Your task to perform on an android device: Open Google Image 0: 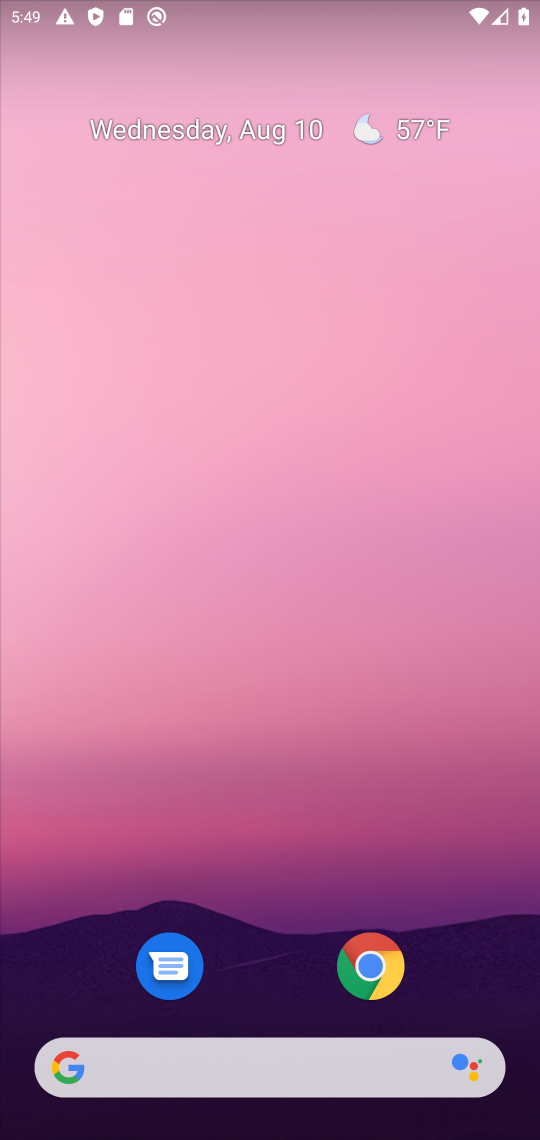
Step 0: press home button
Your task to perform on an android device: Open Google Image 1: 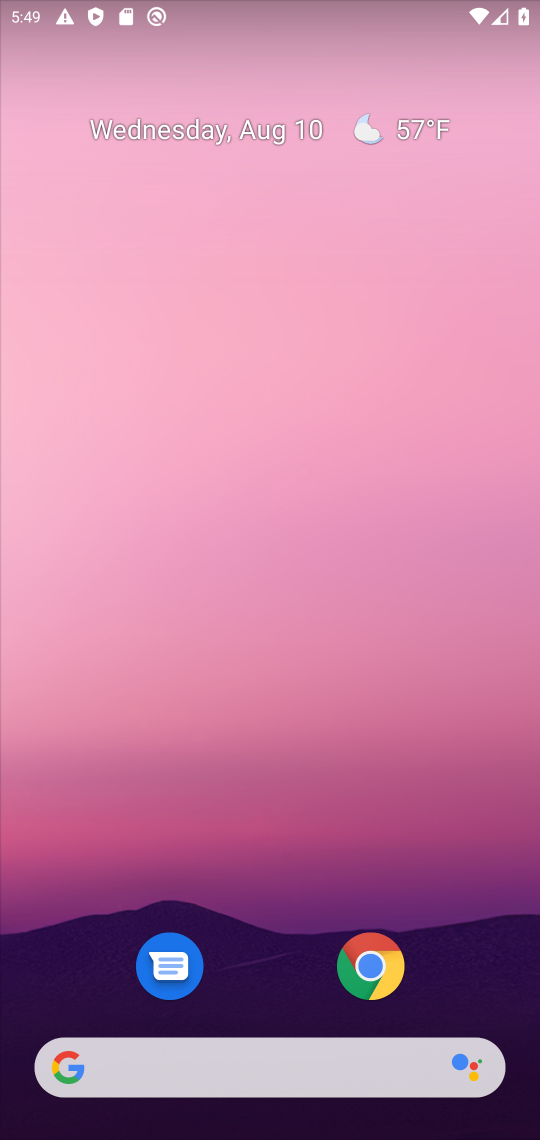
Step 1: click (75, 1078)
Your task to perform on an android device: Open Google Image 2: 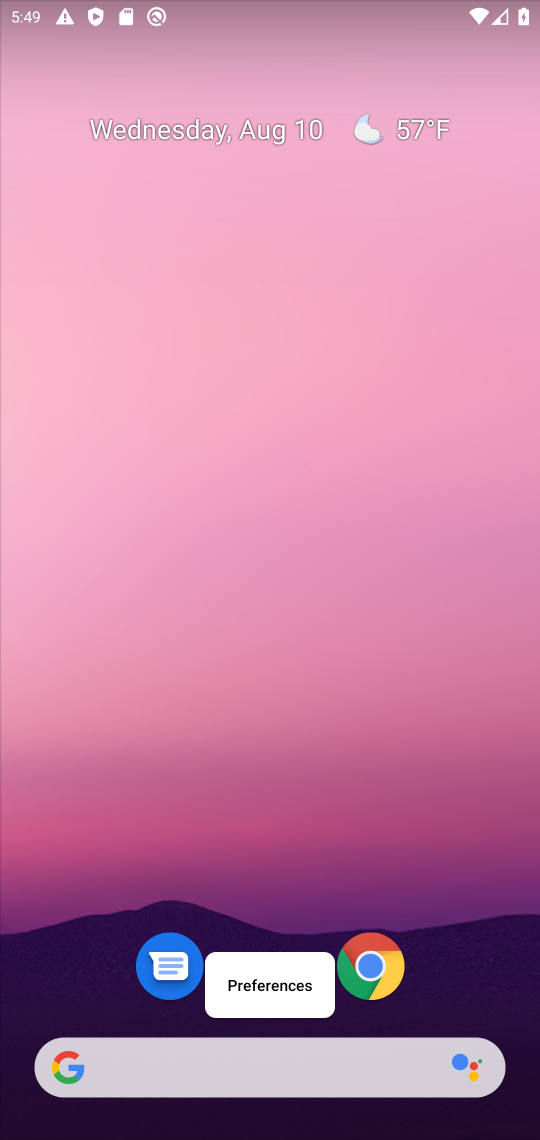
Step 2: click (77, 1074)
Your task to perform on an android device: Open Google Image 3: 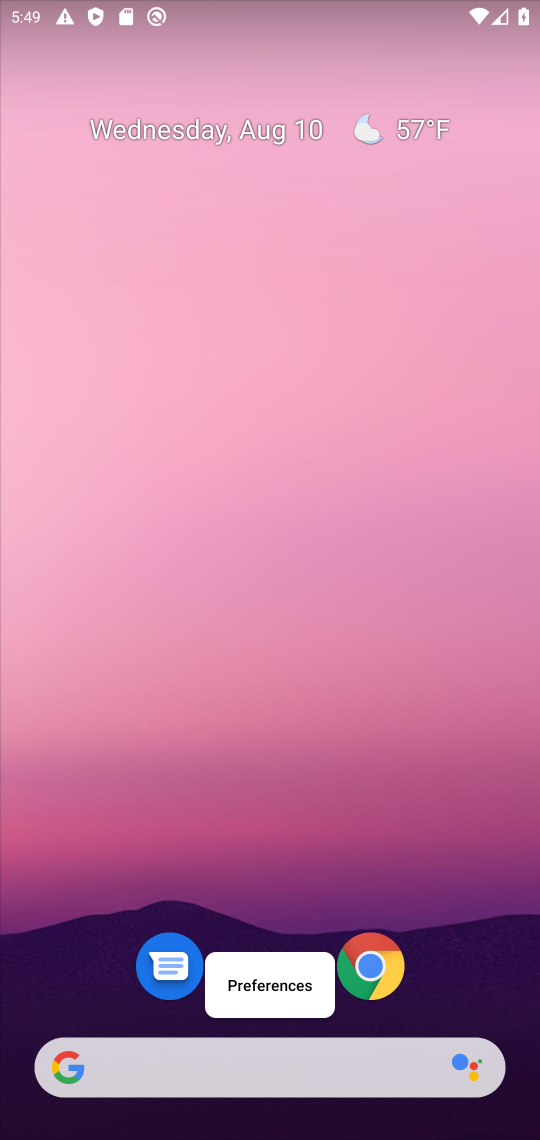
Step 3: drag from (454, 1017) to (484, 59)
Your task to perform on an android device: Open Google Image 4: 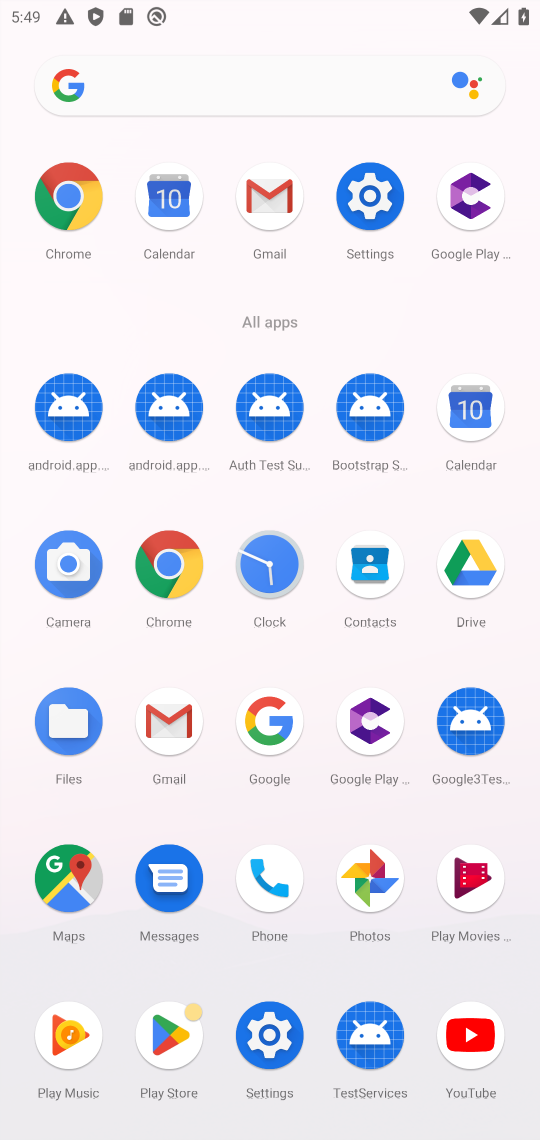
Step 4: click (265, 731)
Your task to perform on an android device: Open Google Image 5: 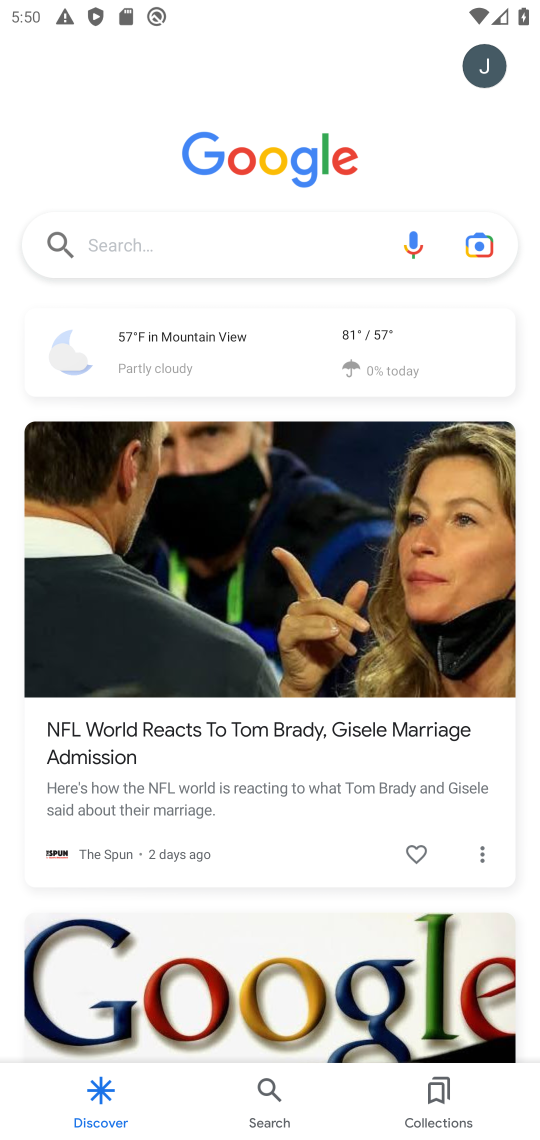
Step 5: task complete